Your task to perform on an android device: change timer sound Image 0: 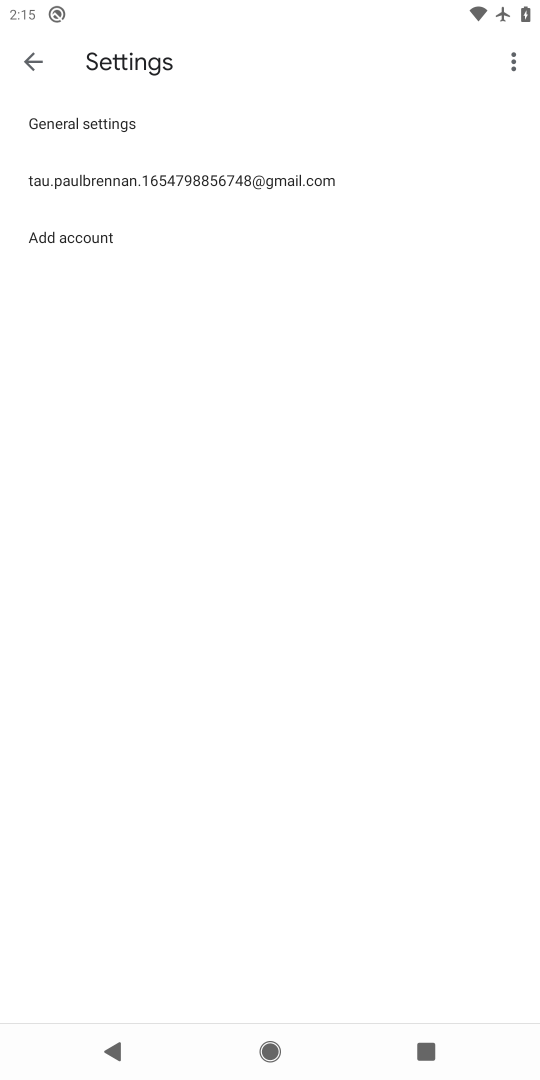
Step 0: press home button
Your task to perform on an android device: change timer sound Image 1: 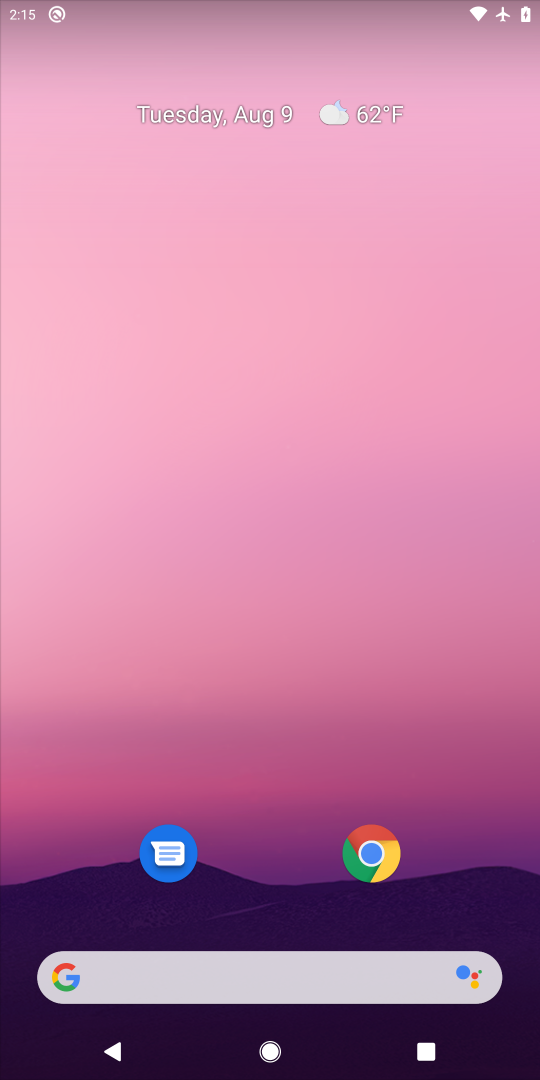
Step 1: drag from (277, 871) to (354, 363)
Your task to perform on an android device: change timer sound Image 2: 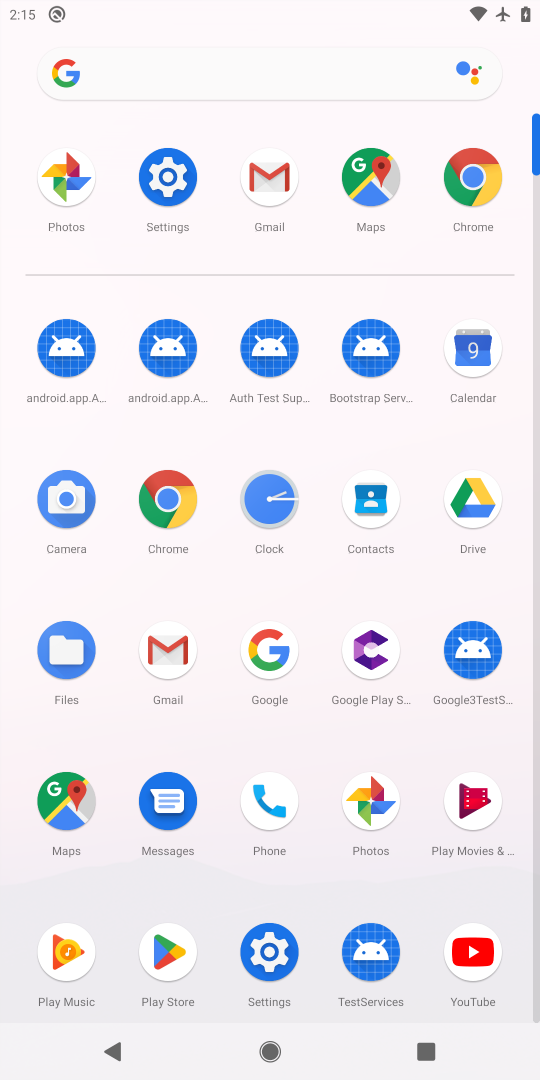
Step 2: click (172, 180)
Your task to perform on an android device: change timer sound Image 3: 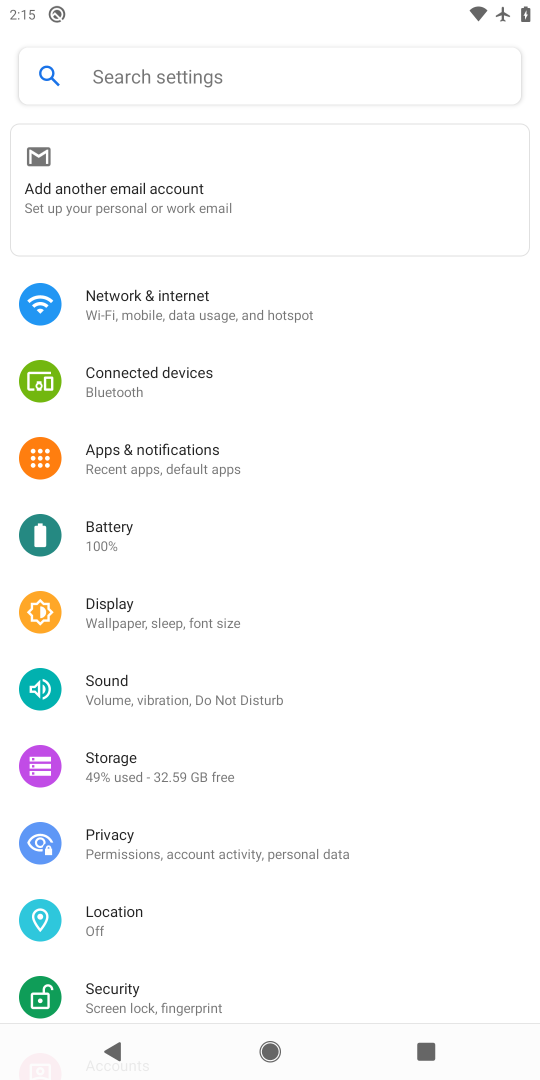
Step 3: press home button
Your task to perform on an android device: change timer sound Image 4: 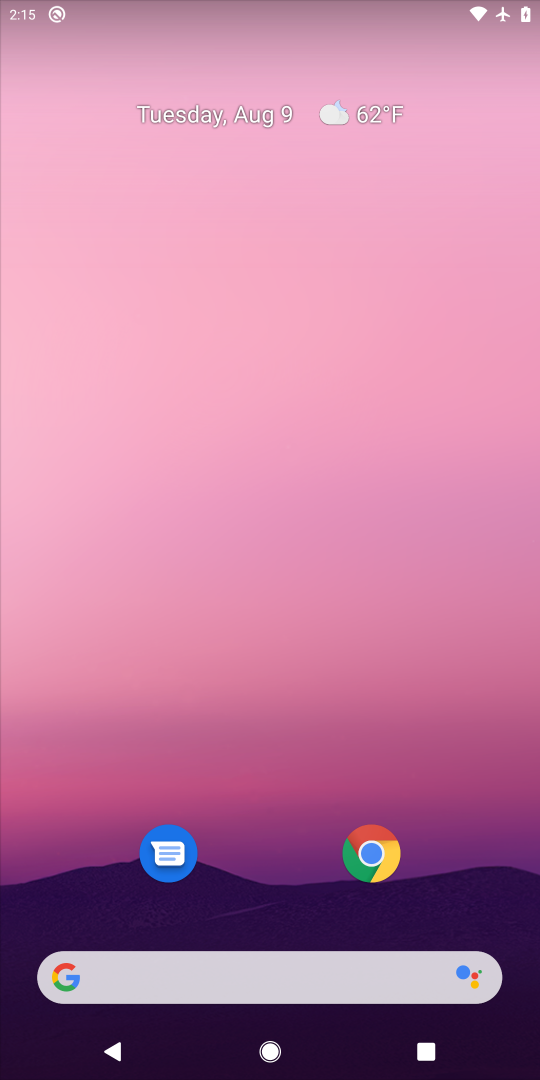
Step 4: drag from (259, 846) to (301, 384)
Your task to perform on an android device: change timer sound Image 5: 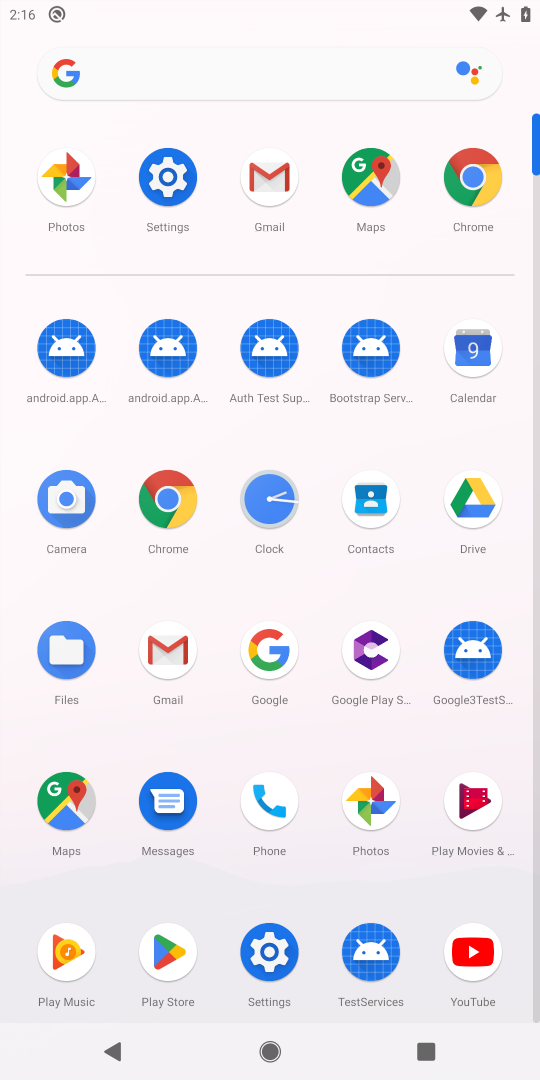
Step 5: click (261, 486)
Your task to perform on an android device: change timer sound Image 6: 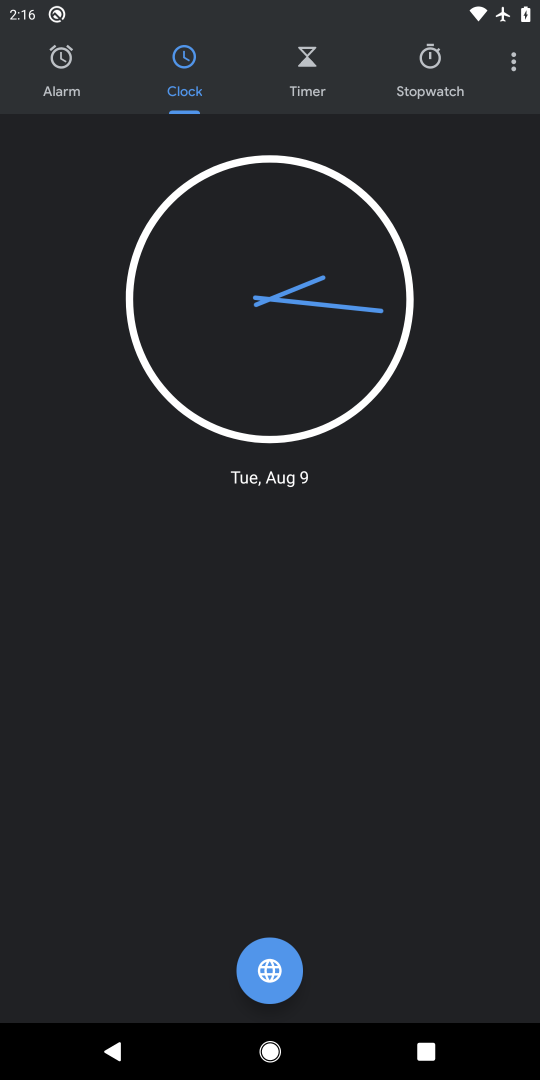
Step 6: click (515, 53)
Your task to perform on an android device: change timer sound Image 7: 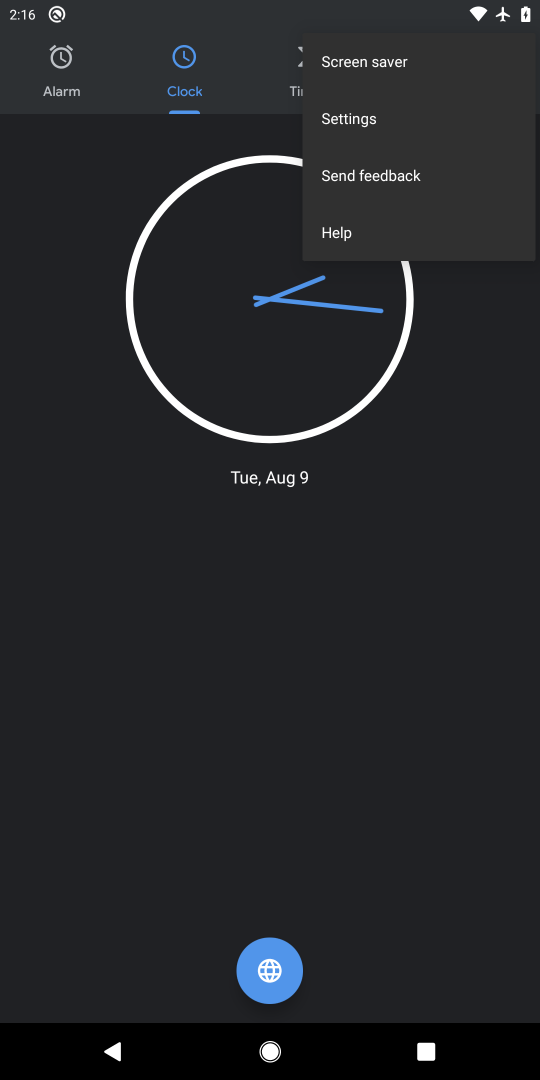
Step 7: click (385, 124)
Your task to perform on an android device: change timer sound Image 8: 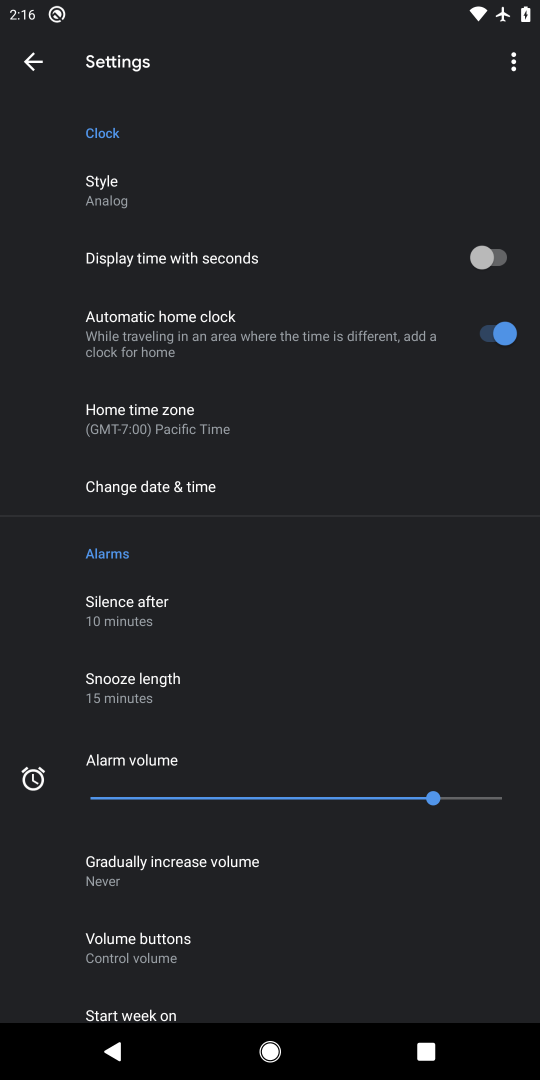
Step 8: drag from (172, 556) to (171, 269)
Your task to perform on an android device: change timer sound Image 9: 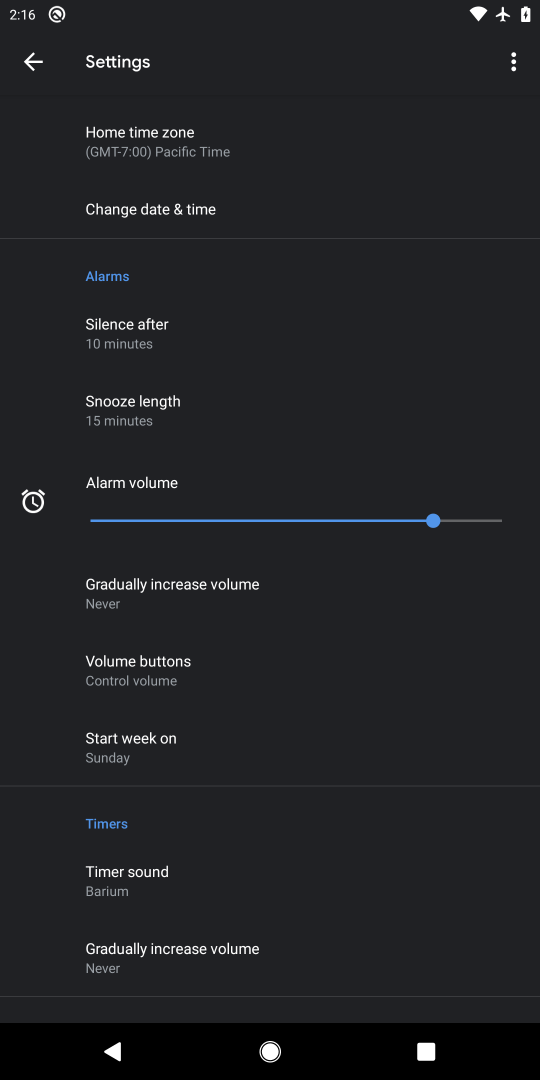
Step 9: click (137, 884)
Your task to perform on an android device: change timer sound Image 10: 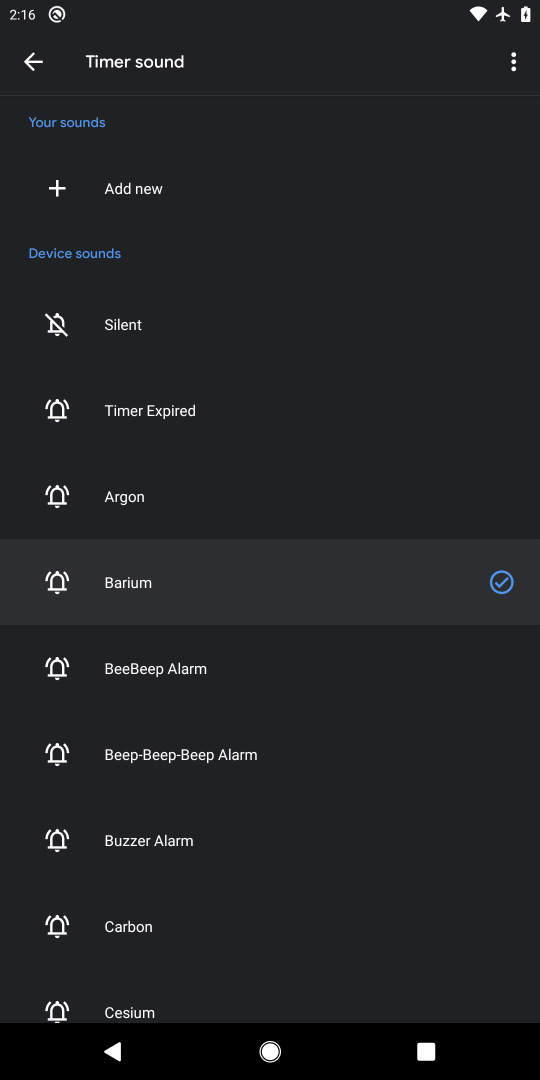
Step 10: click (127, 412)
Your task to perform on an android device: change timer sound Image 11: 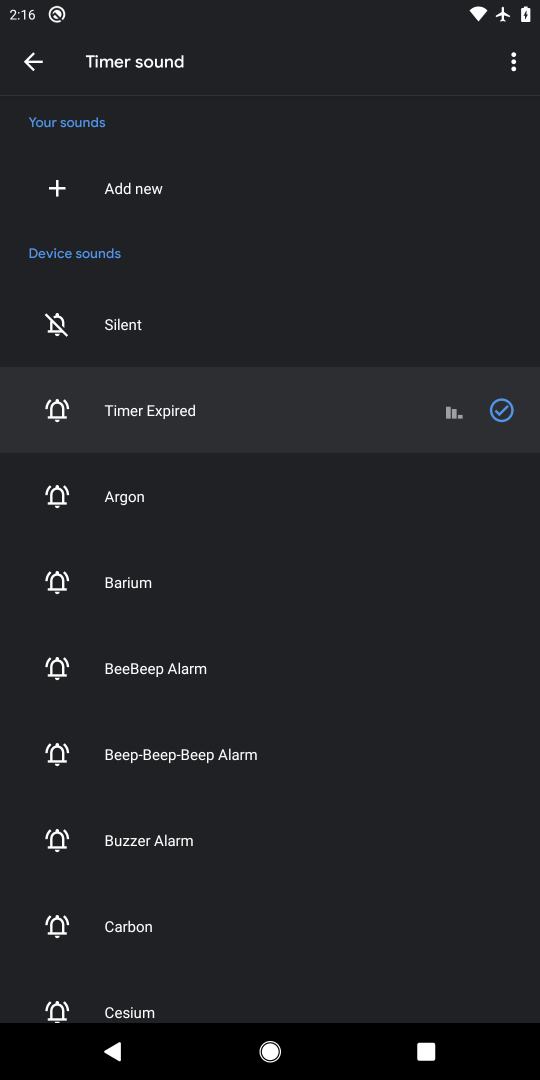
Step 11: task complete